Your task to perform on an android device: Show me popular videos on Youtube Image 0: 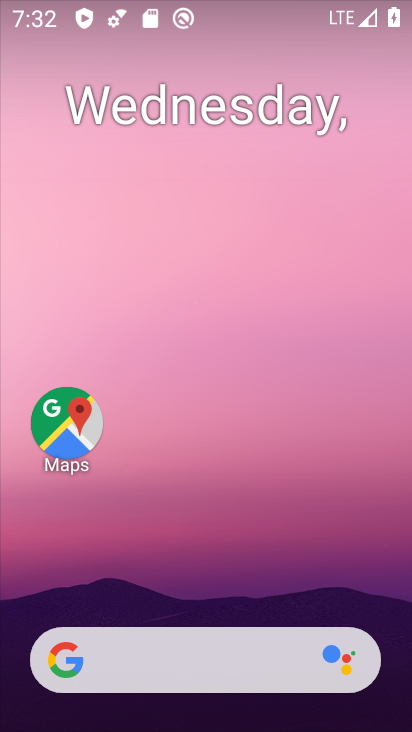
Step 0: drag from (214, 622) to (179, 219)
Your task to perform on an android device: Show me popular videos on Youtube Image 1: 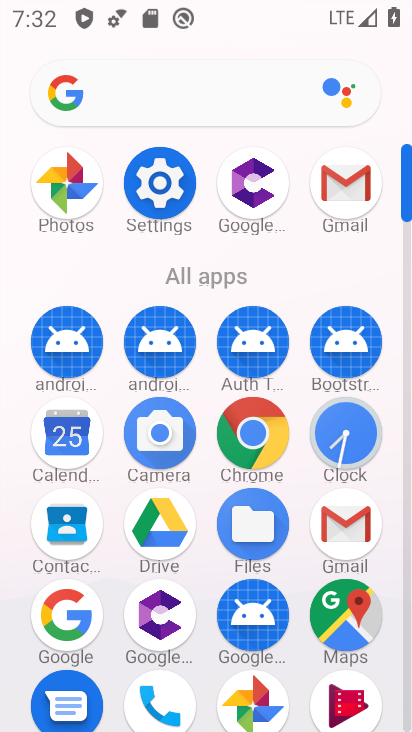
Step 1: drag from (216, 571) to (285, 59)
Your task to perform on an android device: Show me popular videos on Youtube Image 2: 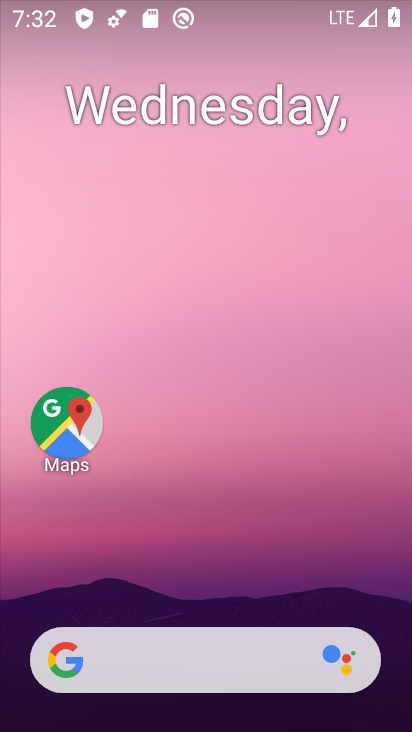
Step 2: drag from (182, 586) to (136, 156)
Your task to perform on an android device: Show me popular videos on Youtube Image 3: 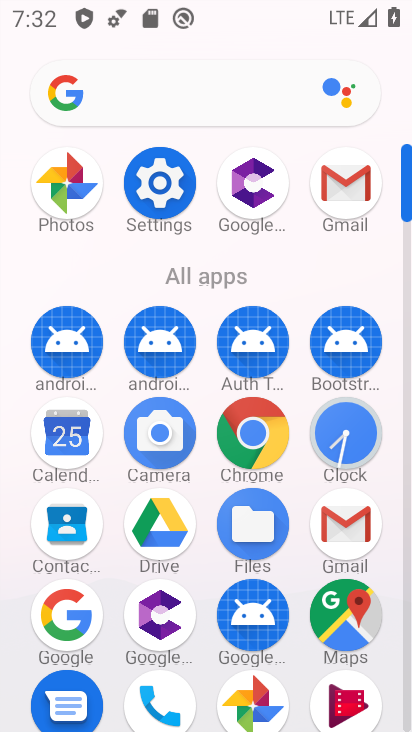
Step 3: click (405, 627)
Your task to perform on an android device: Show me popular videos on Youtube Image 4: 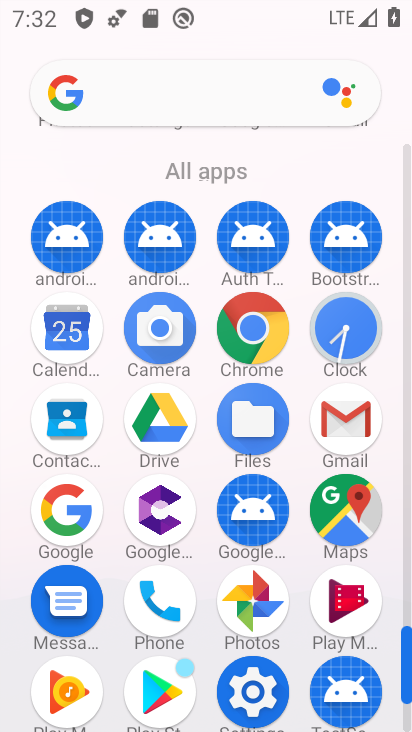
Step 4: click (406, 648)
Your task to perform on an android device: Show me popular videos on Youtube Image 5: 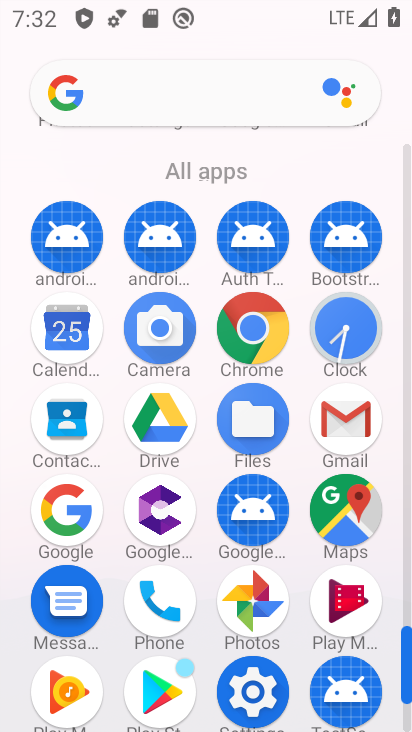
Step 5: click (409, 725)
Your task to perform on an android device: Show me popular videos on Youtube Image 6: 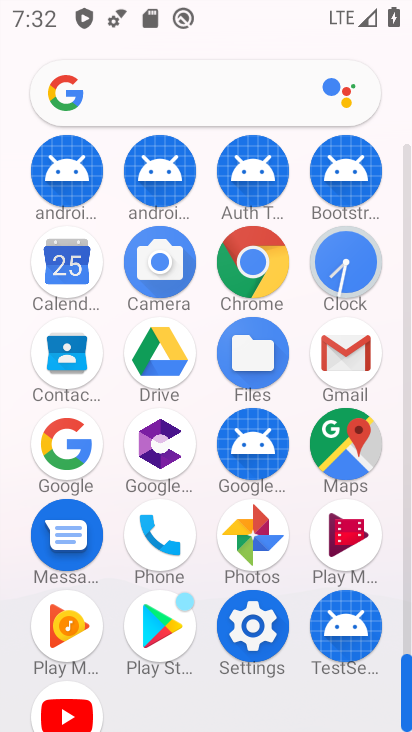
Step 6: click (409, 725)
Your task to perform on an android device: Show me popular videos on Youtube Image 7: 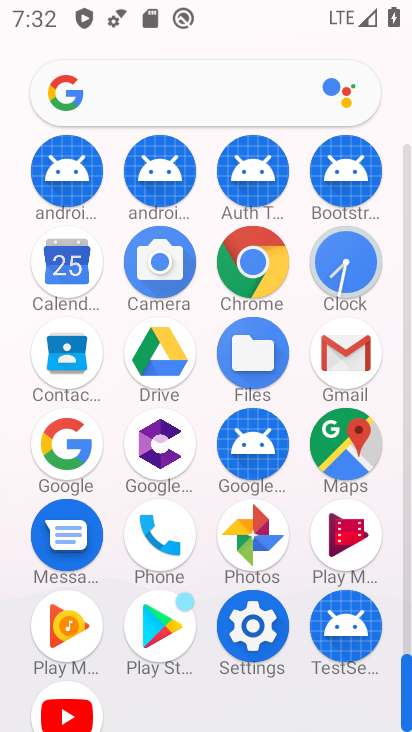
Step 7: click (72, 703)
Your task to perform on an android device: Show me popular videos on Youtube Image 8: 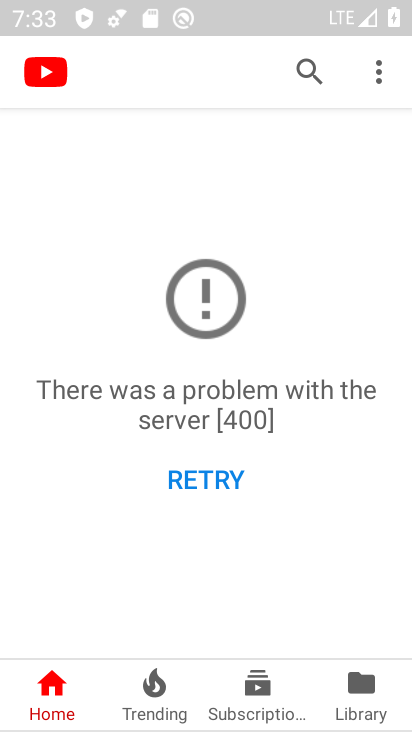
Step 8: task complete